Your task to perform on an android device: Go to Google Image 0: 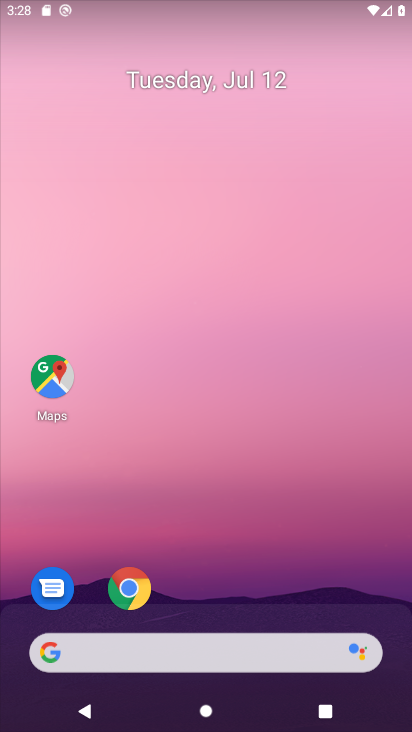
Step 0: click (131, 666)
Your task to perform on an android device: Go to Google Image 1: 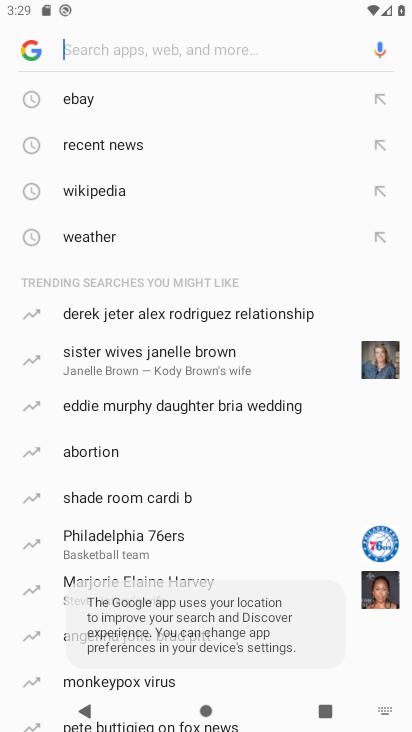
Step 1: click (32, 43)
Your task to perform on an android device: Go to Google Image 2: 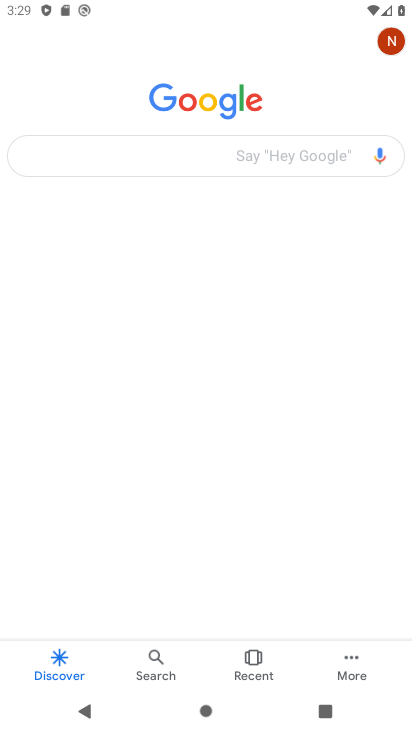
Step 2: task complete